Your task to perform on an android device: Open settings Image 0: 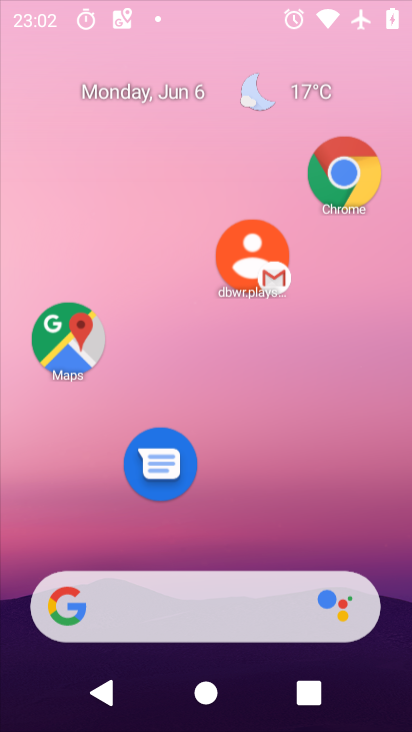
Step 0: drag from (240, 39) to (52, 164)
Your task to perform on an android device: Open settings Image 1: 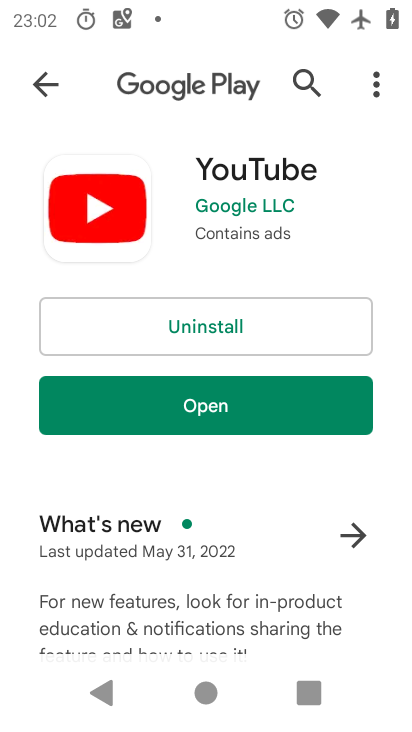
Step 1: drag from (200, 590) to (333, 130)
Your task to perform on an android device: Open settings Image 2: 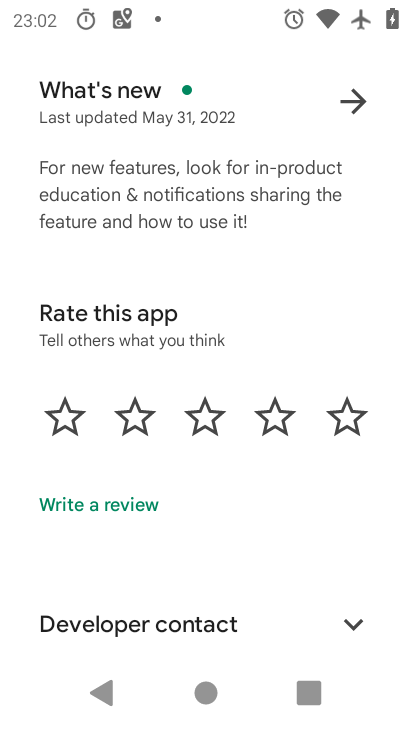
Step 2: press home button
Your task to perform on an android device: Open settings Image 3: 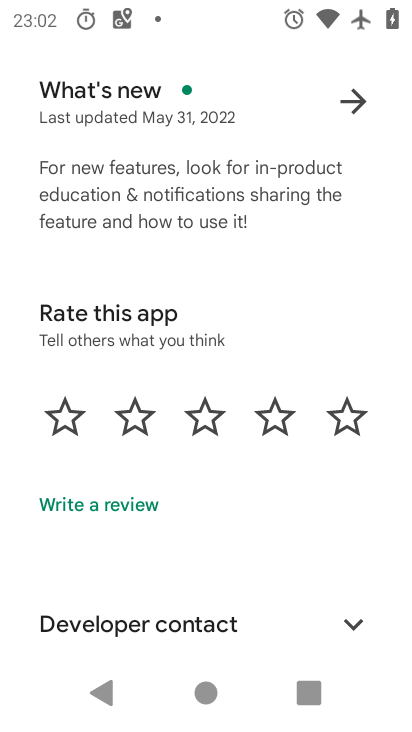
Step 3: drag from (177, 575) to (268, 83)
Your task to perform on an android device: Open settings Image 4: 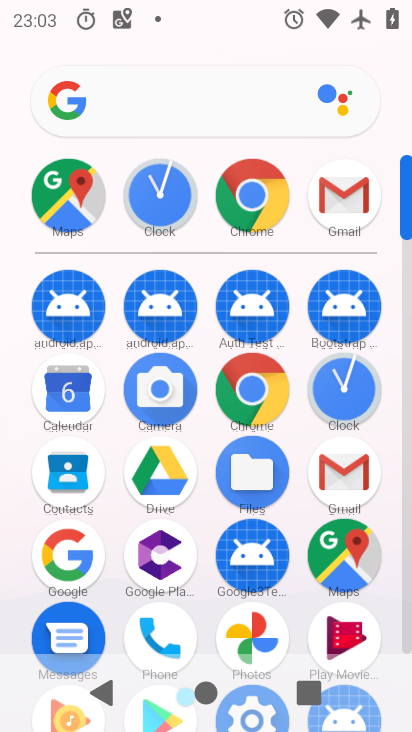
Step 4: drag from (206, 610) to (206, 42)
Your task to perform on an android device: Open settings Image 5: 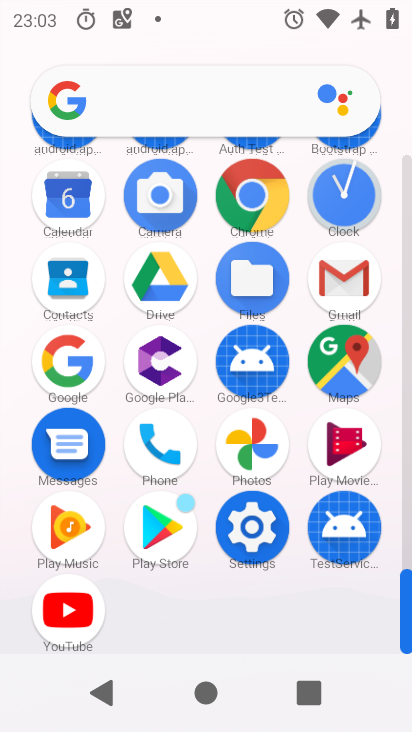
Step 5: click (242, 541)
Your task to perform on an android device: Open settings Image 6: 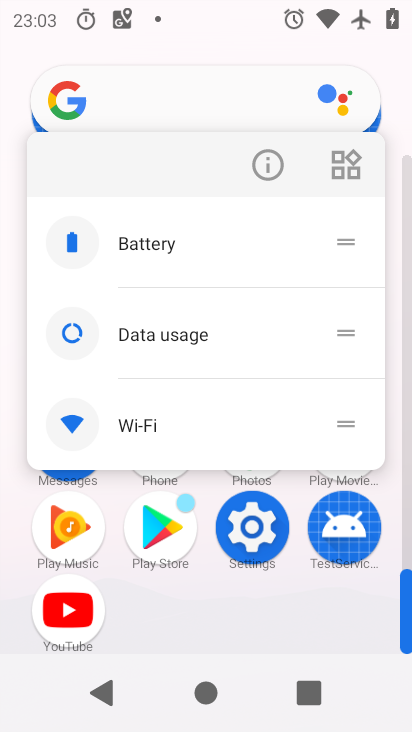
Step 6: click (276, 166)
Your task to perform on an android device: Open settings Image 7: 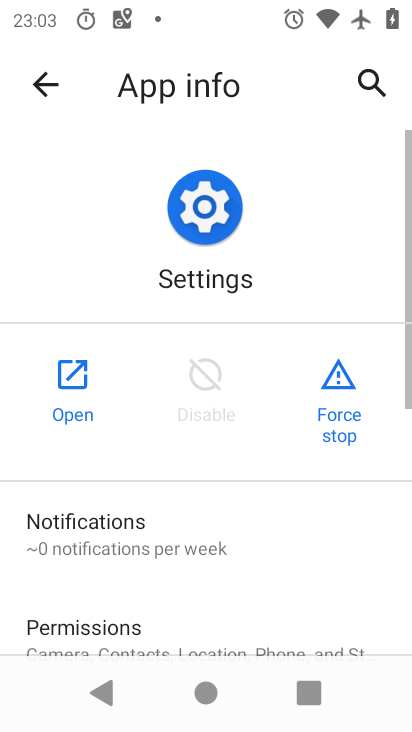
Step 7: click (79, 385)
Your task to perform on an android device: Open settings Image 8: 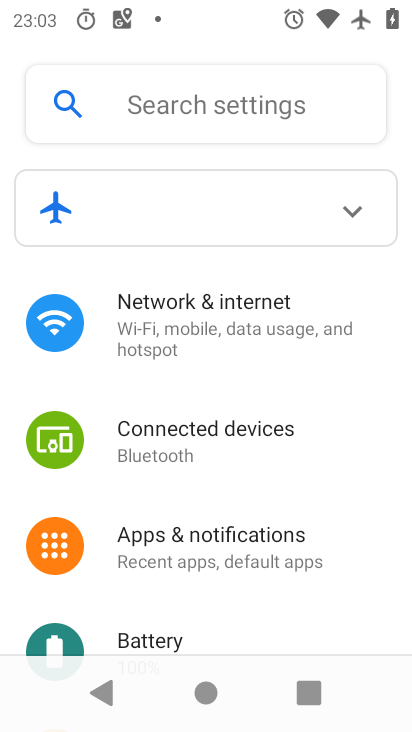
Step 8: task complete